Your task to perform on an android device: Go to Maps Image 0: 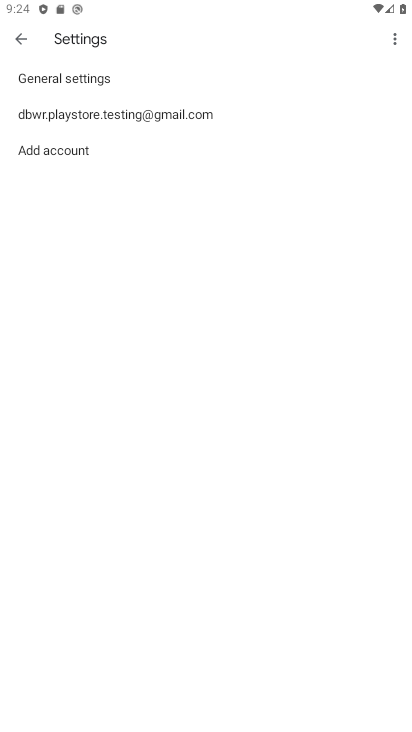
Step 0: press home button
Your task to perform on an android device: Go to Maps Image 1: 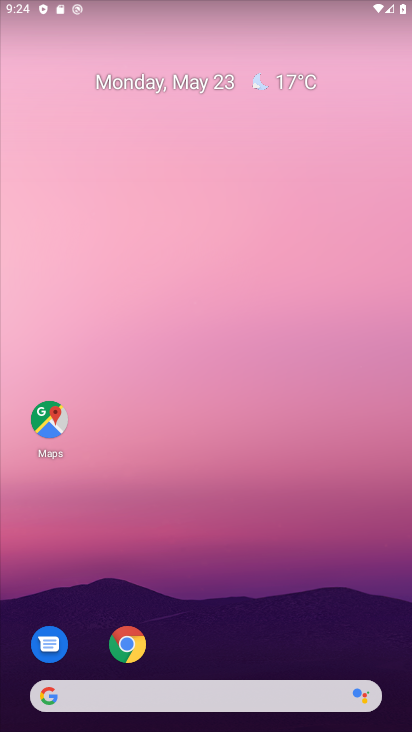
Step 1: click (47, 430)
Your task to perform on an android device: Go to Maps Image 2: 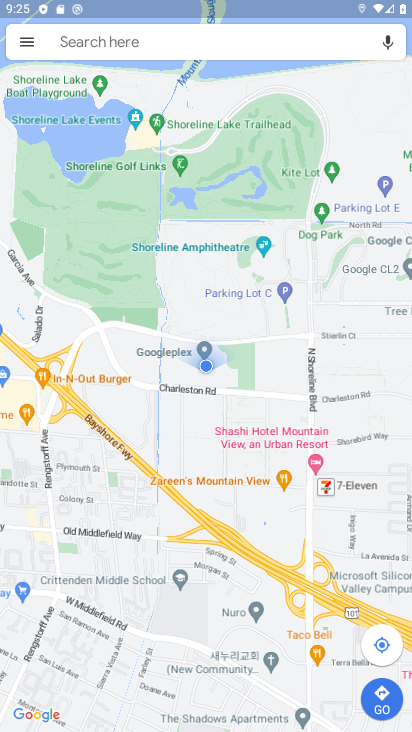
Step 2: task complete